Your task to perform on an android device: What's the weather going to be tomorrow? Image 0: 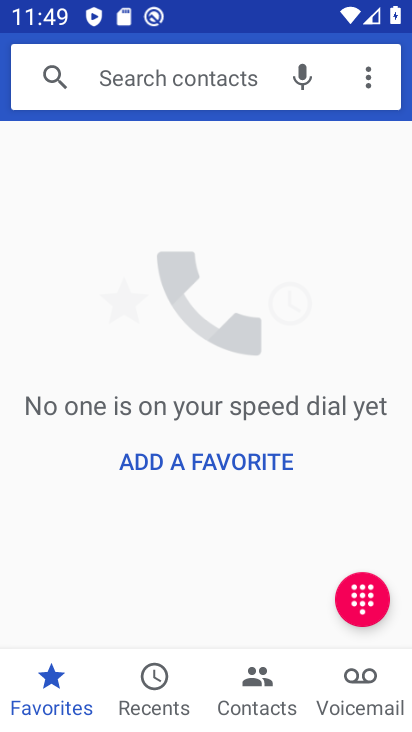
Step 0: press home button
Your task to perform on an android device: What's the weather going to be tomorrow? Image 1: 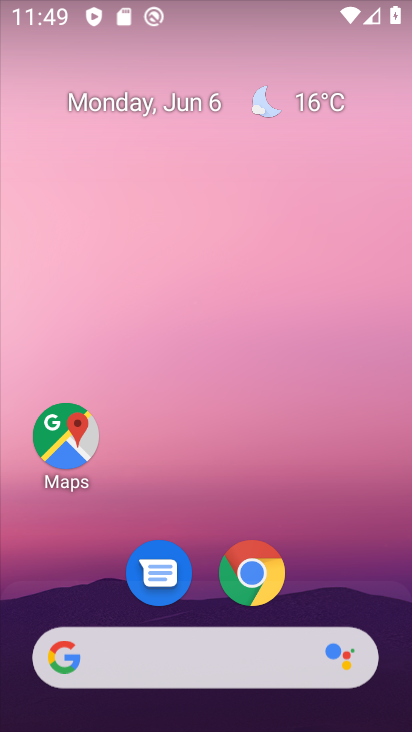
Step 1: click (293, 110)
Your task to perform on an android device: What's the weather going to be tomorrow? Image 2: 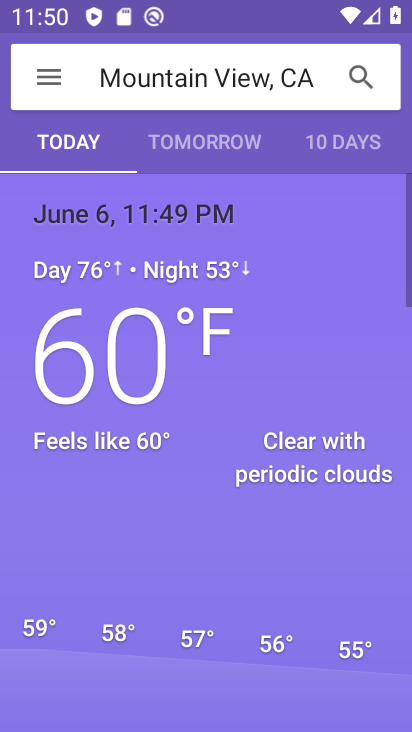
Step 2: click (190, 161)
Your task to perform on an android device: What's the weather going to be tomorrow? Image 3: 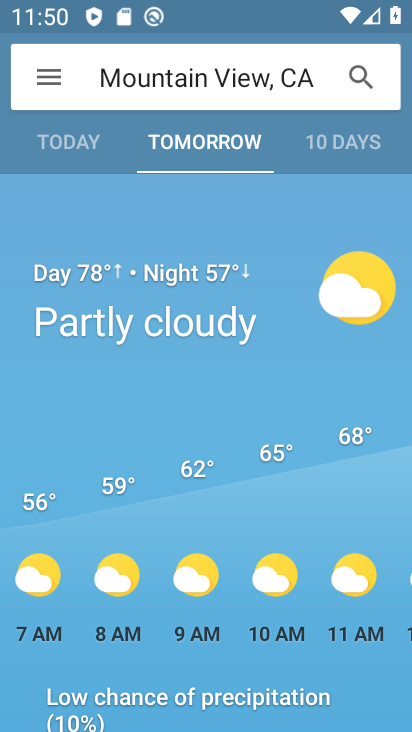
Step 3: task complete